Your task to perform on an android device: toggle javascript in the chrome app Image 0: 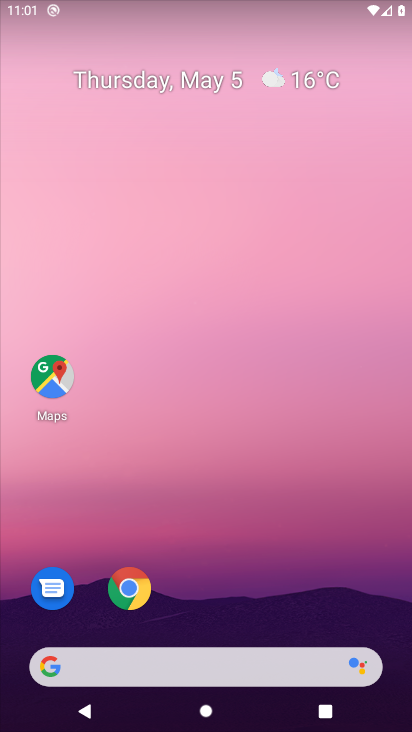
Step 0: drag from (236, 581) to (216, 71)
Your task to perform on an android device: toggle javascript in the chrome app Image 1: 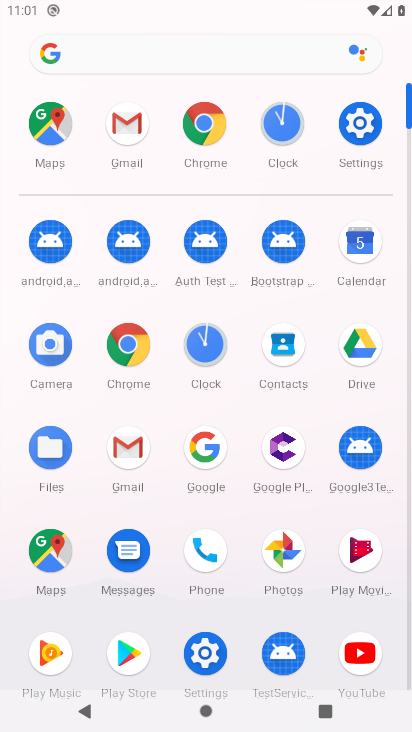
Step 1: click (207, 131)
Your task to perform on an android device: toggle javascript in the chrome app Image 2: 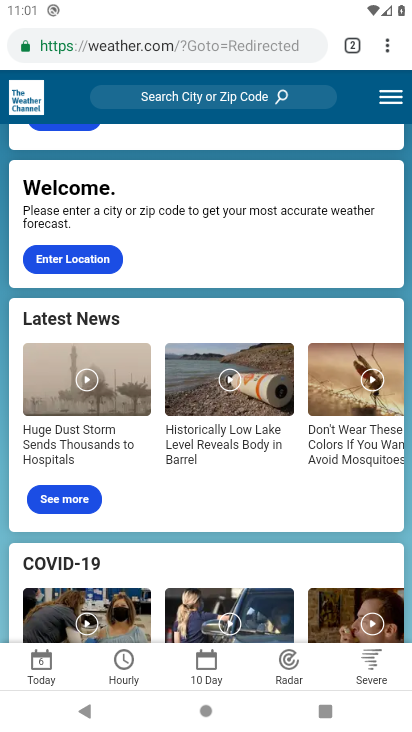
Step 2: click (351, 54)
Your task to perform on an android device: toggle javascript in the chrome app Image 3: 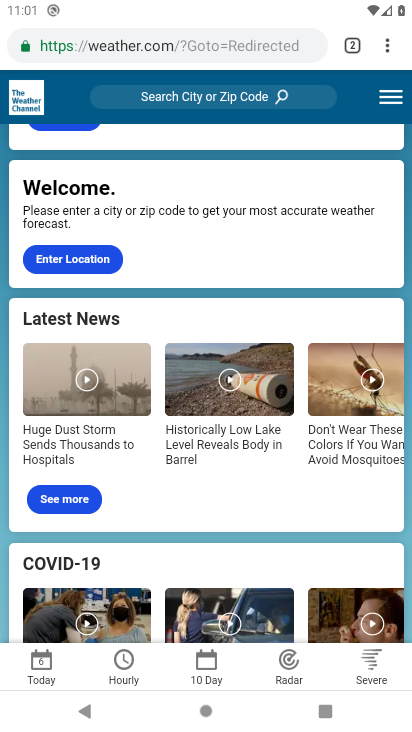
Step 3: click (351, 45)
Your task to perform on an android device: toggle javascript in the chrome app Image 4: 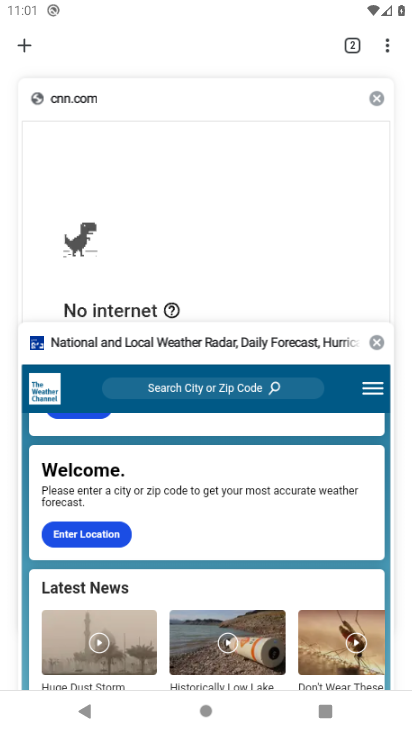
Step 4: click (255, 425)
Your task to perform on an android device: toggle javascript in the chrome app Image 5: 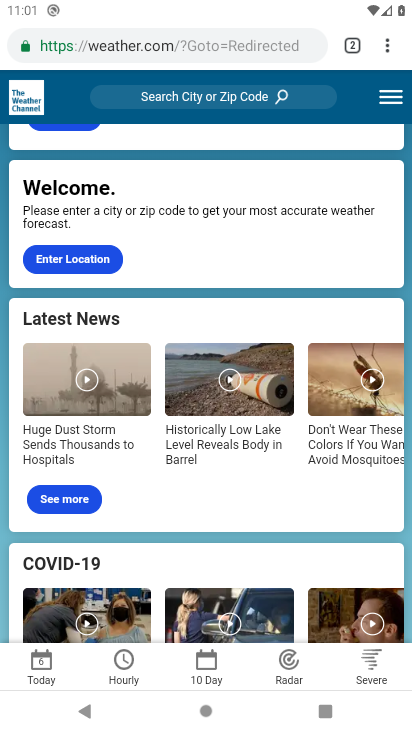
Step 5: click (382, 51)
Your task to perform on an android device: toggle javascript in the chrome app Image 6: 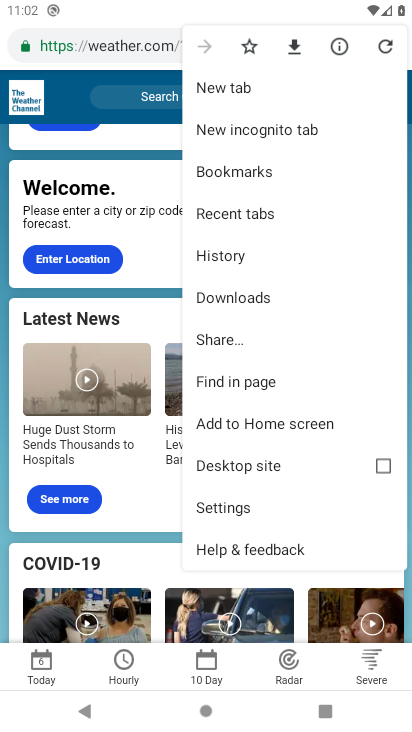
Step 6: click (286, 511)
Your task to perform on an android device: toggle javascript in the chrome app Image 7: 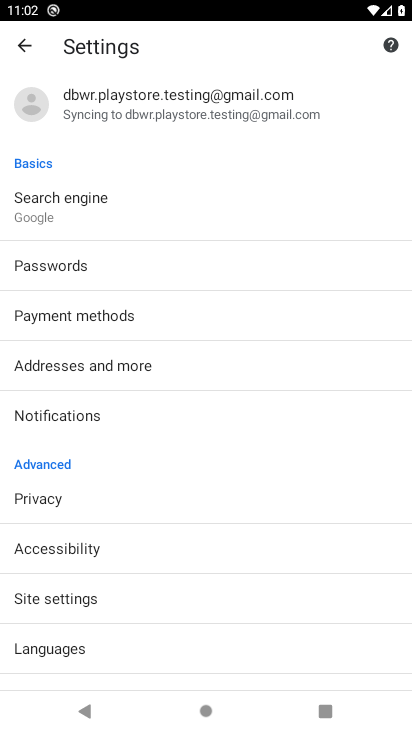
Step 7: click (293, 608)
Your task to perform on an android device: toggle javascript in the chrome app Image 8: 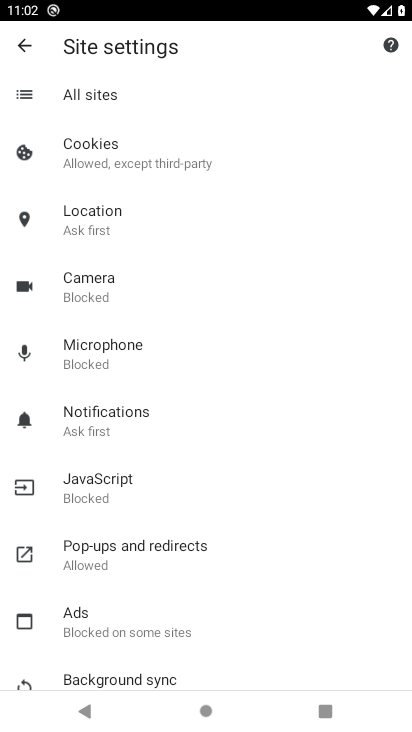
Step 8: click (270, 510)
Your task to perform on an android device: toggle javascript in the chrome app Image 9: 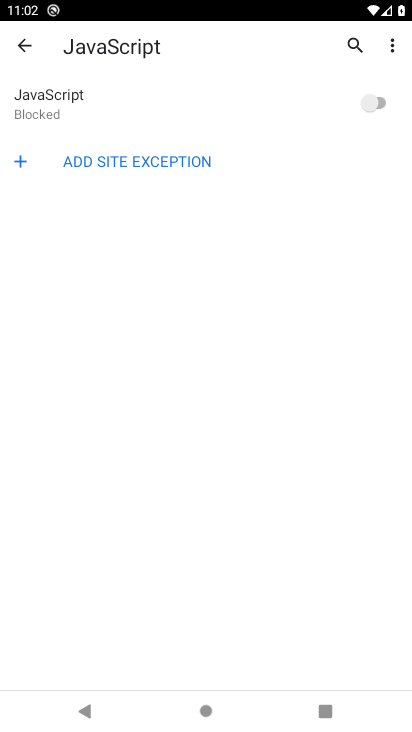
Step 9: task complete